Your task to perform on an android device: Go to Google Image 0: 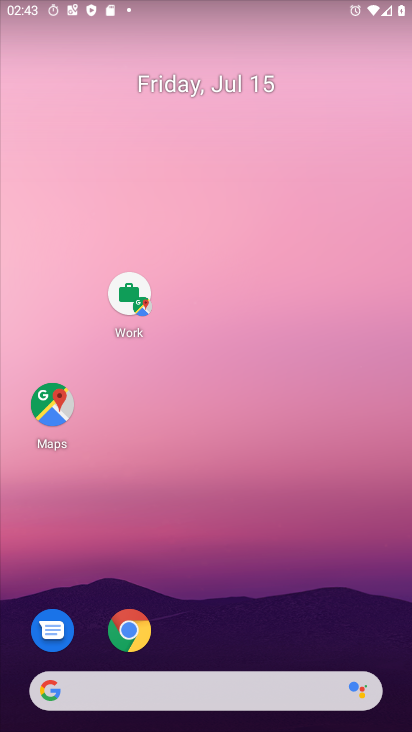
Step 0: drag from (234, 640) to (234, 280)
Your task to perform on an android device: Go to Google Image 1: 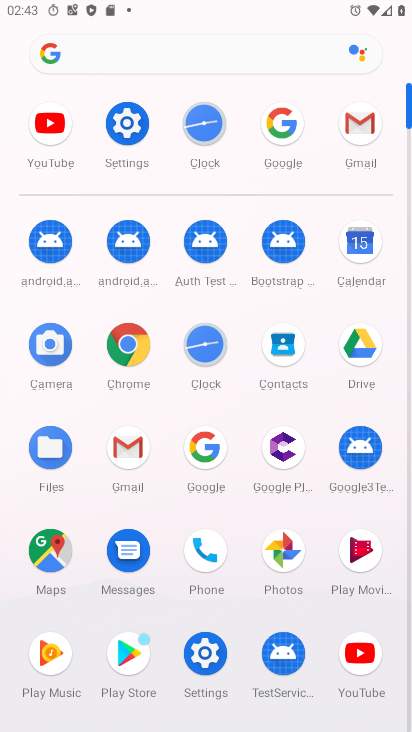
Step 1: click (274, 146)
Your task to perform on an android device: Go to Google Image 2: 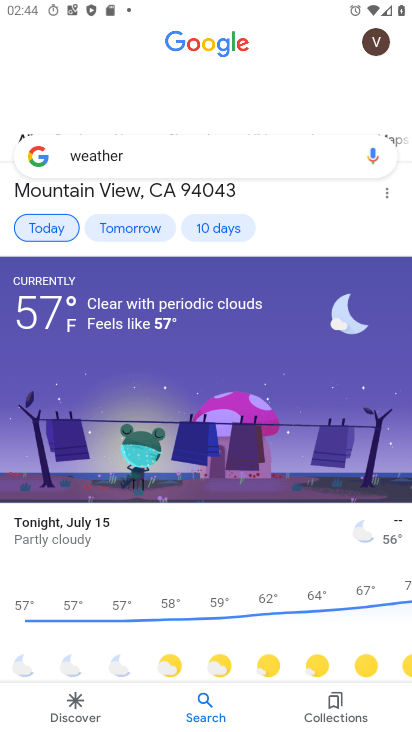
Step 2: task complete